Your task to perform on an android device: snooze an email in the gmail app Image 0: 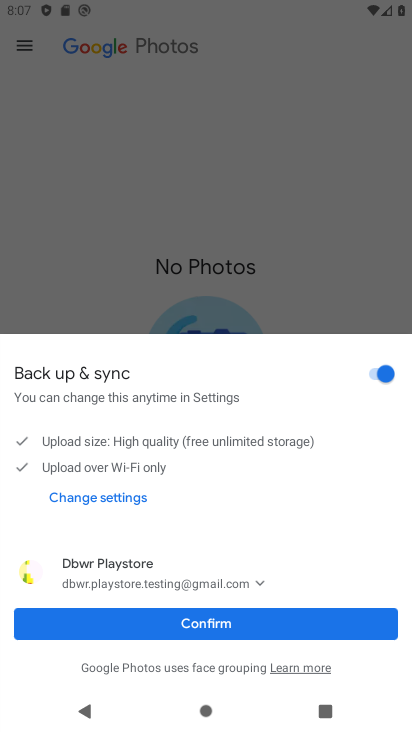
Step 0: press home button
Your task to perform on an android device: snooze an email in the gmail app Image 1: 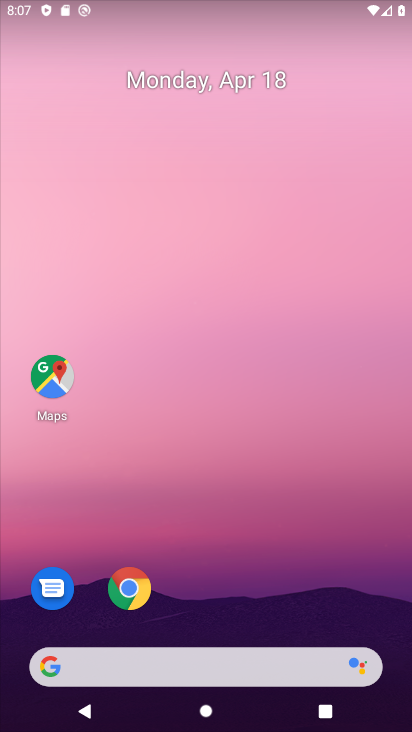
Step 1: drag from (264, 607) to (240, 3)
Your task to perform on an android device: snooze an email in the gmail app Image 2: 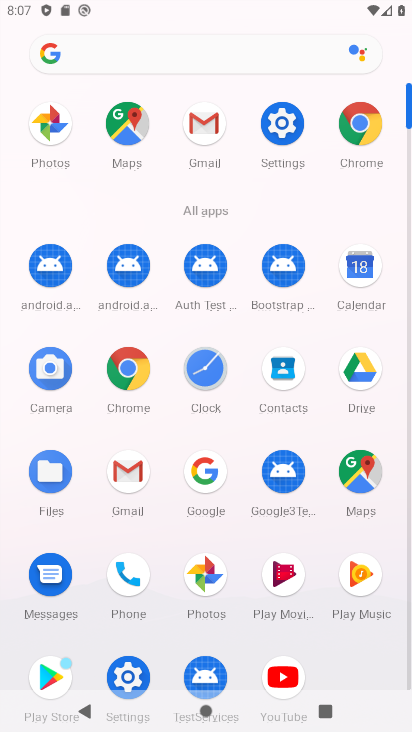
Step 2: click (201, 135)
Your task to perform on an android device: snooze an email in the gmail app Image 3: 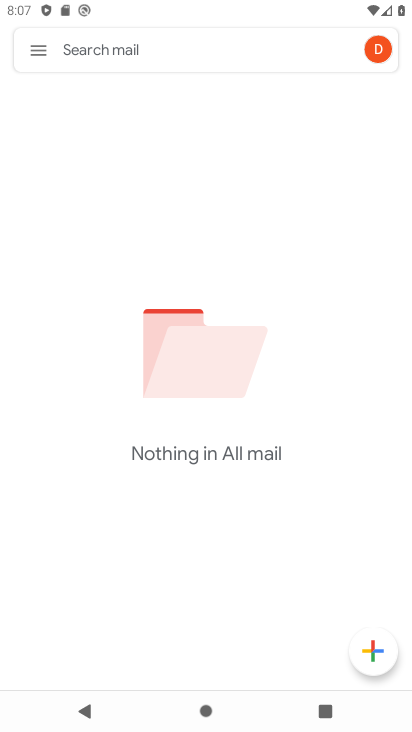
Step 3: click (35, 58)
Your task to perform on an android device: snooze an email in the gmail app Image 4: 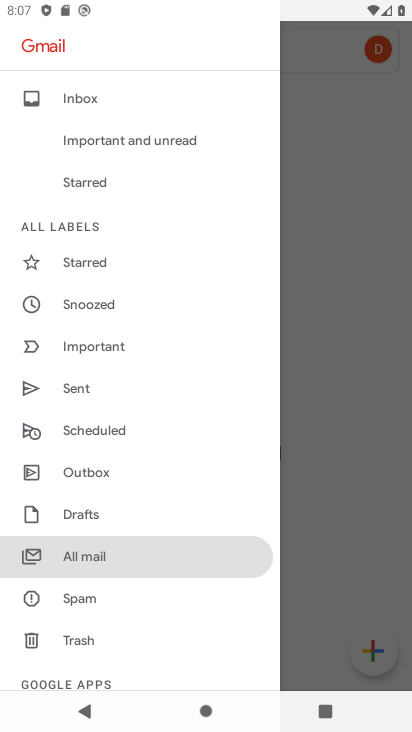
Step 4: click (86, 567)
Your task to perform on an android device: snooze an email in the gmail app Image 5: 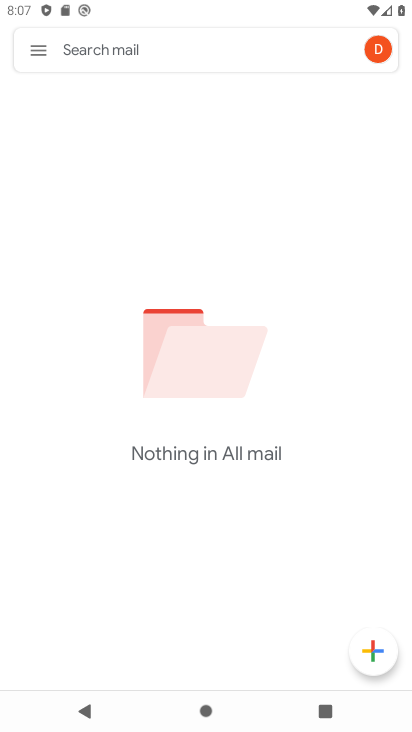
Step 5: task complete